Your task to perform on an android device: Is it going to rain today? Image 0: 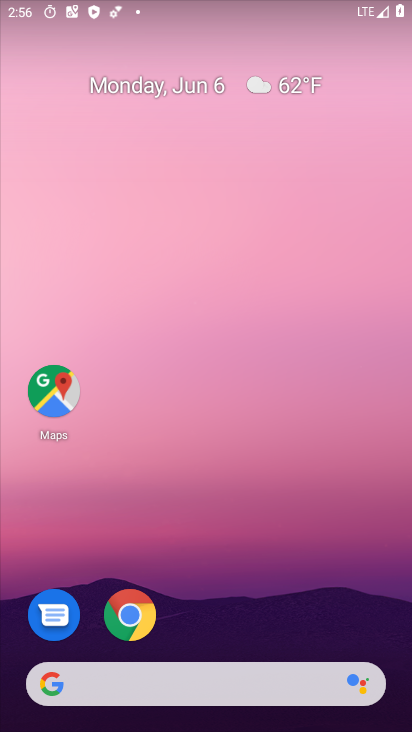
Step 0: drag from (256, 688) to (334, 4)
Your task to perform on an android device: Is it going to rain today? Image 1: 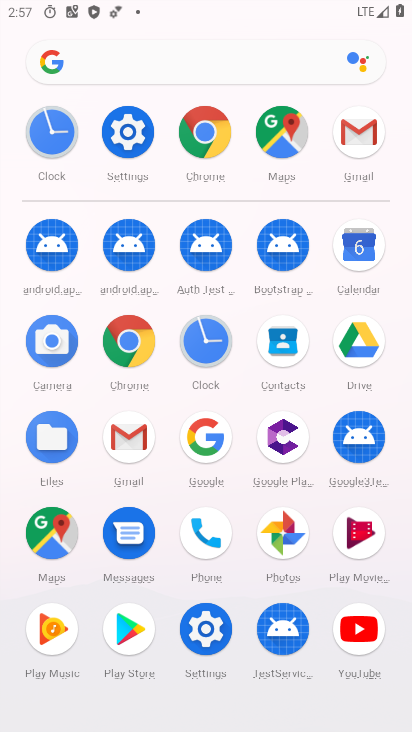
Step 1: click (139, 351)
Your task to perform on an android device: Is it going to rain today? Image 2: 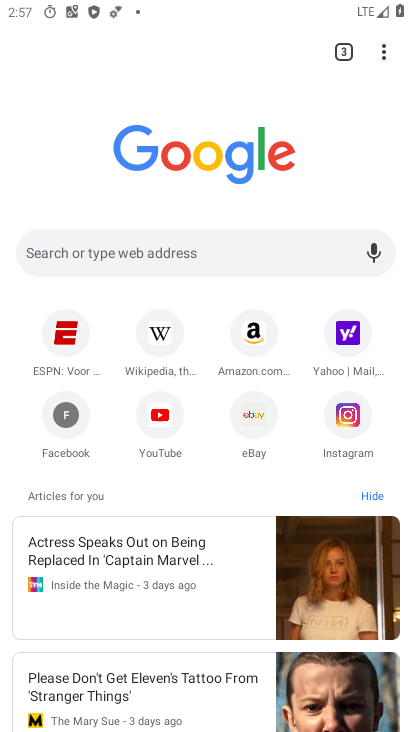
Step 2: press home button
Your task to perform on an android device: Is it going to rain today? Image 3: 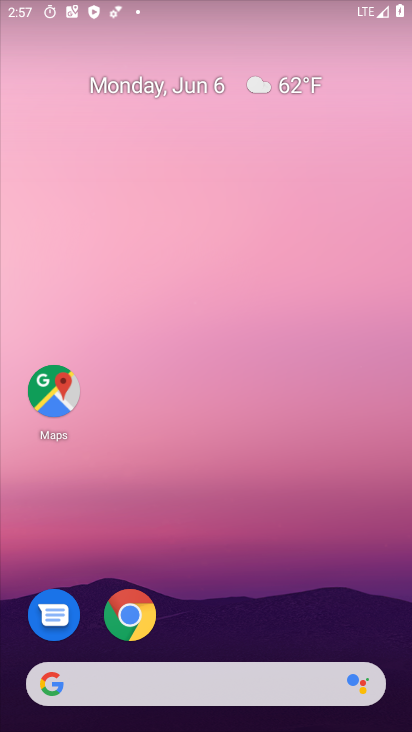
Step 3: drag from (20, 204) to (389, 198)
Your task to perform on an android device: Is it going to rain today? Image 4: 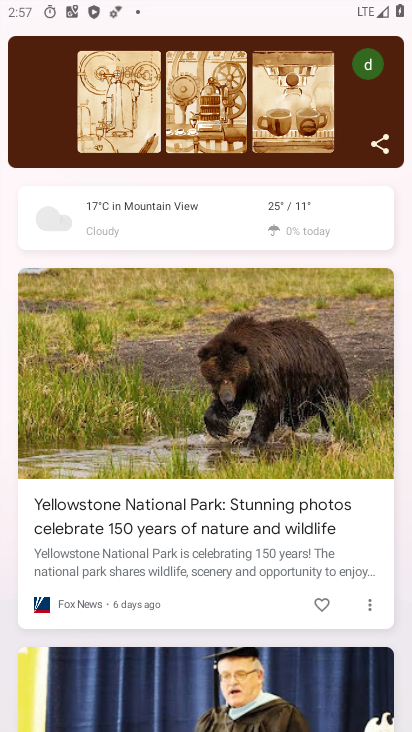
Step 4: click (168, 221)
Your task to perform on an android device: Is it going to rain today? Image 5: 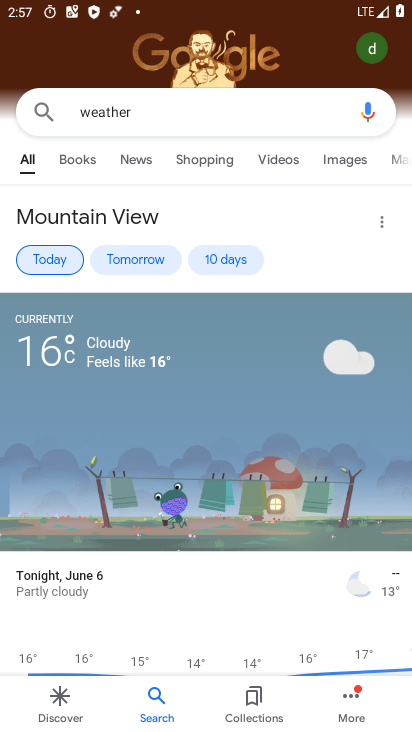
Step 5: task complete